Your task to perform on an android device: open a bookmark in the chrome app Image 0: 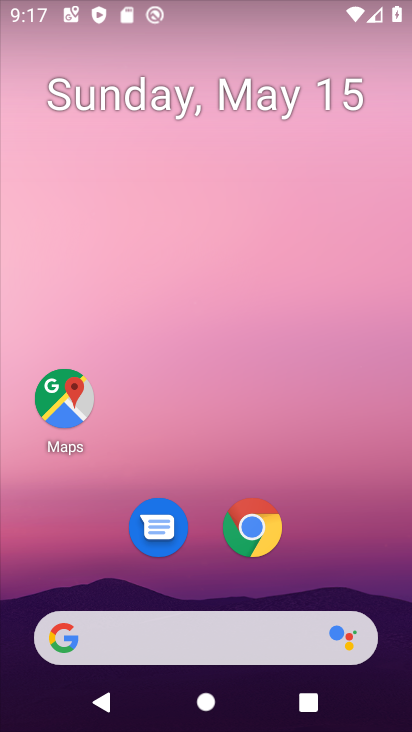
Step 0: click (268, 524)
Your task to perform on an android device: open a bookmark in the chrome app Image 1: 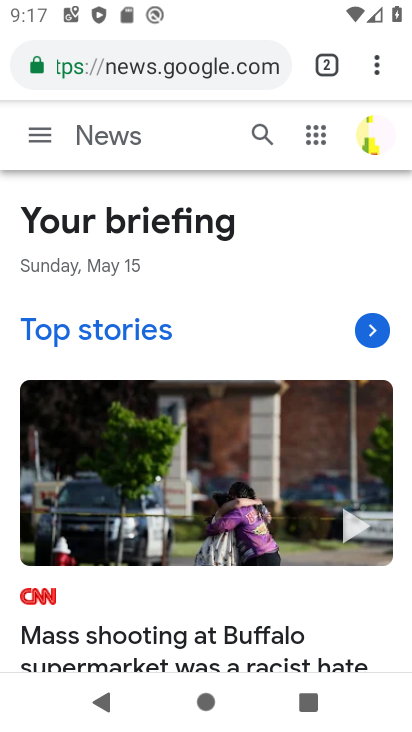
Step 1: click (371, 65)
Your task to perform on an android device: open a bookmark in the chrome app Image 2: 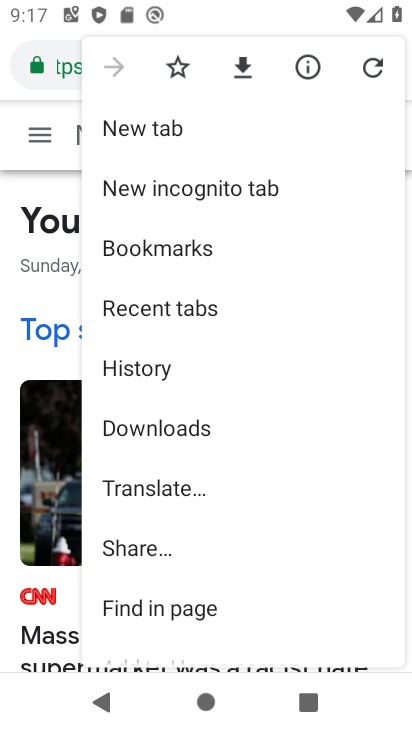
Step 2: click (278, 256)
Your task to perform on an android device: open a bookmark in the chrome app Image 3: 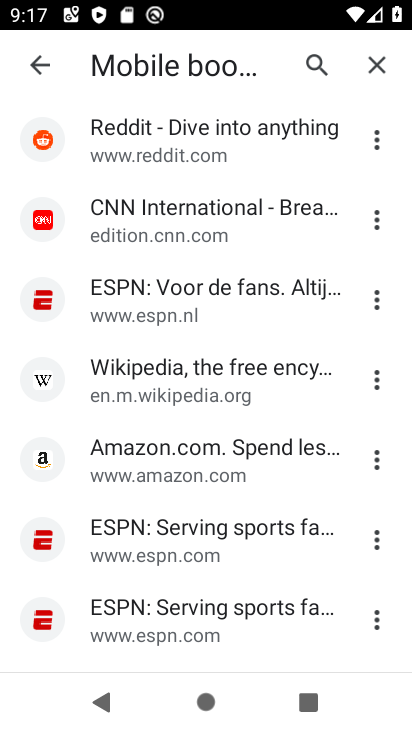
Step 3: click (253, 281)
Your task to perform on an android device: open a bookmark in the chrome app Image 4: 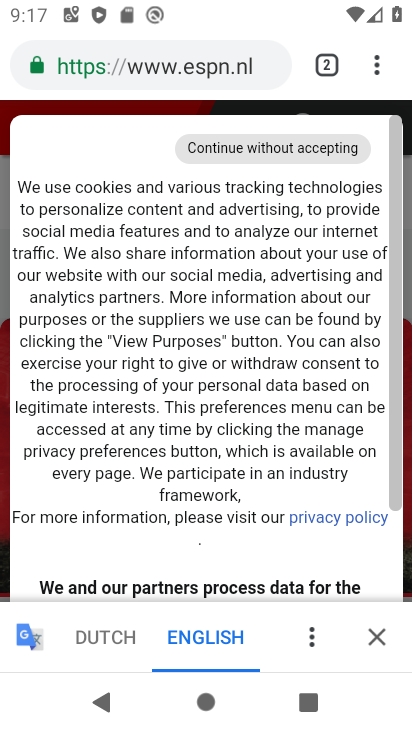
Step 4: task complete